Your task to perform on an android device: Go to Google maps Image 0: 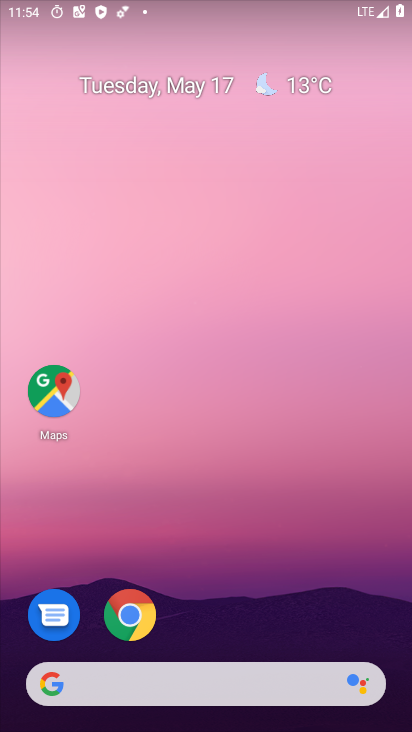
Step 0: press home button
Your task to perform on an android device: Go to Google maps Image 1: 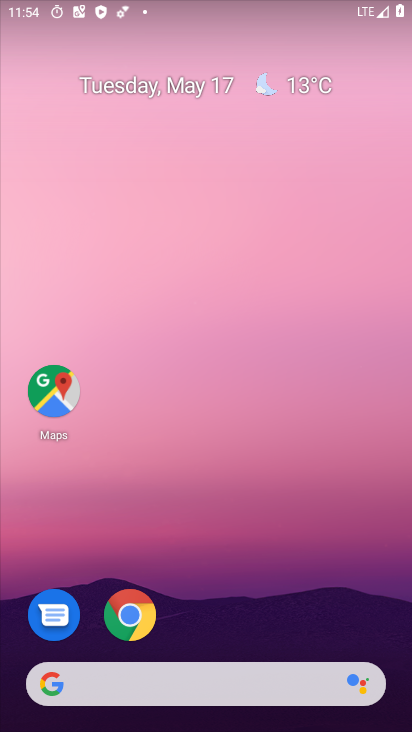
Step 1: click (48, 390)
Your task to perform on an android device: Go to Google maps Image 2: 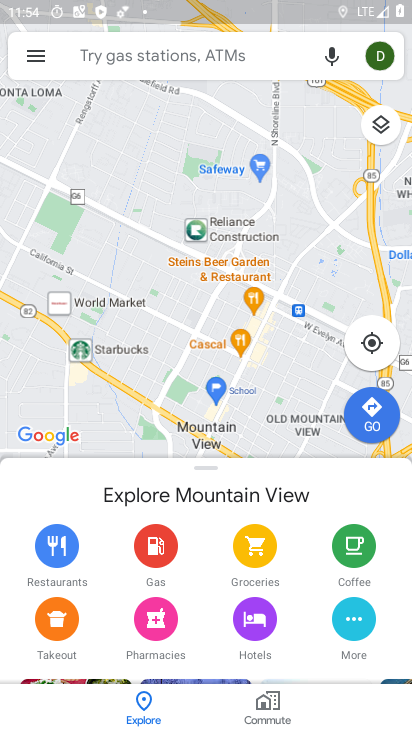
Step 2: task complete